Your task to perform on an android device: Show the shopping cart on bestbuy. Image 0: 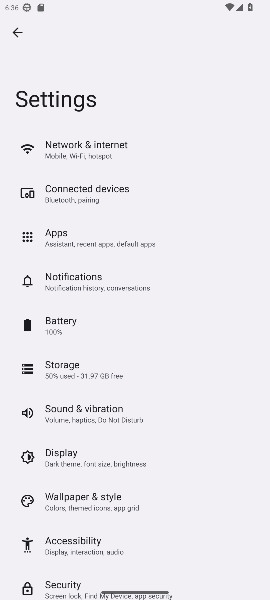
Step 0: press home button
Your task to perform on an android device: Show the shopping cart on bestbuy. Image 1: 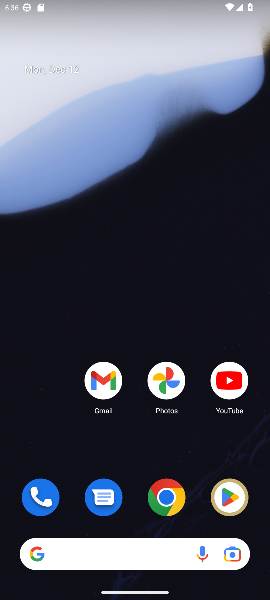
Step 1: drag from (57, 432) to (81, 44)
Your task to perform on an android device: Show the shopping cart on bestbuy. Image 2: 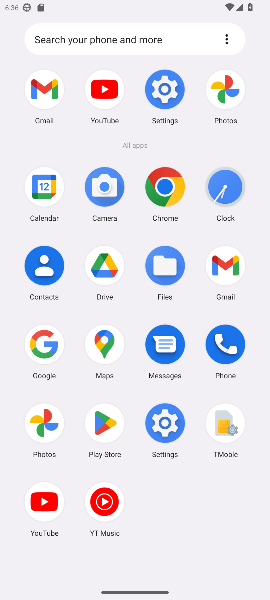
Step 2: click (36, 349)
Your task to perform on an android device: Show the shopping cart on bestbuy. Image 3: 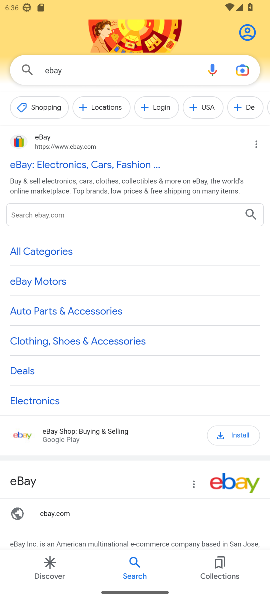
Step 3: click (115, 70)
Your task to perform on an android device: Show the shopping cart on bestbuy. Image 4: 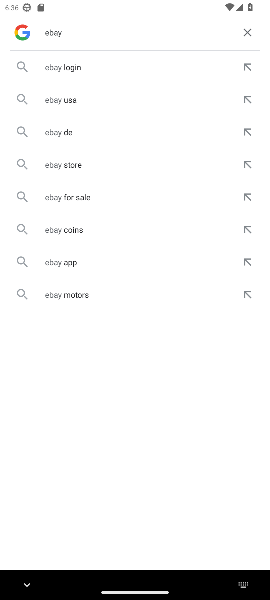
Step 4: click (247, 31)
Your task to perform on an android device: Show the shopping cart on bestbuy. Image 5: 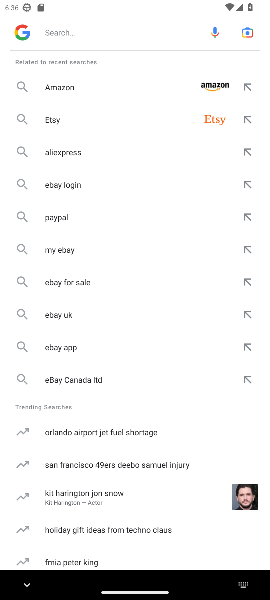
Step 5: type "bestbuy"
Your task to perform on an android device: Show the shopping cart on bestbuy. Image 6: 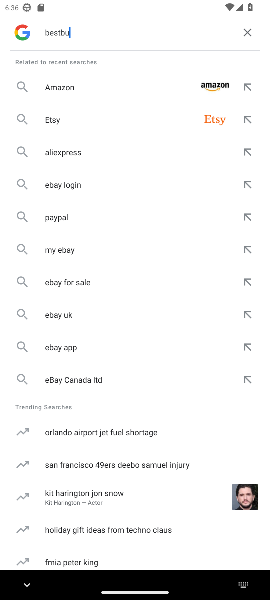
Step 6: press enter
Your task to perform on an android device: Show the shopping cart on bestbuy. Image 7: 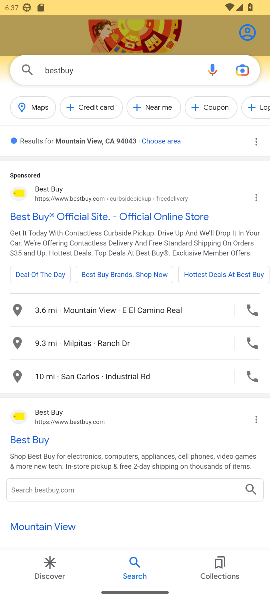
Step 7: click (140, 213)
Your task to perform on an android device: Show the shopping cart on bestbuy. Image 8: 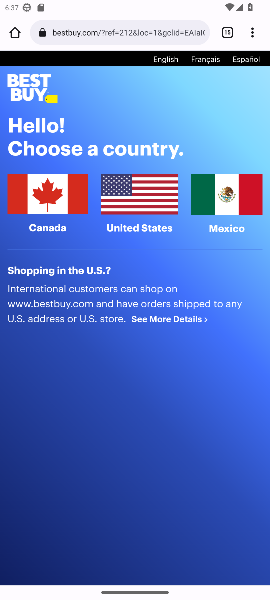
Step 8: click (37, 184)
Your task to perform on an android device: Show the shopping cart on bestbuy. Image 9: 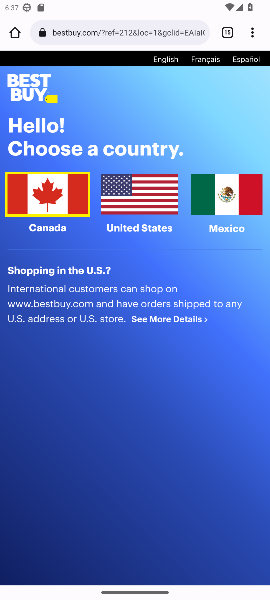
Step 9: click (58, 187)
Your task to perform on an android device: Show the shopping cart on bestbuy. Image 10: 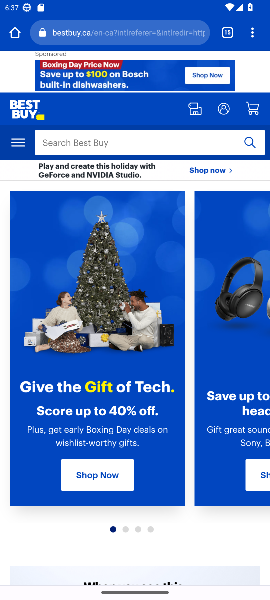
Step 10: click (253, 105)
Your task to perform on an android device: Show the shopping cart on bestbuy. Image 11: 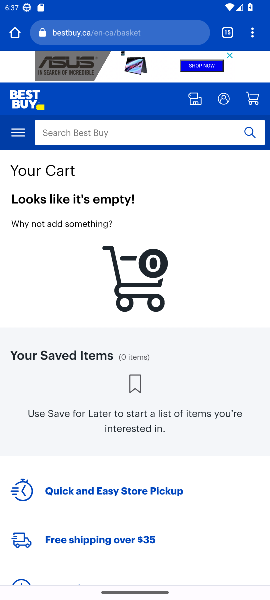
Step 11: task complete